Your task to perform on an android device: turn smart compose on in the gmail app Image 0: 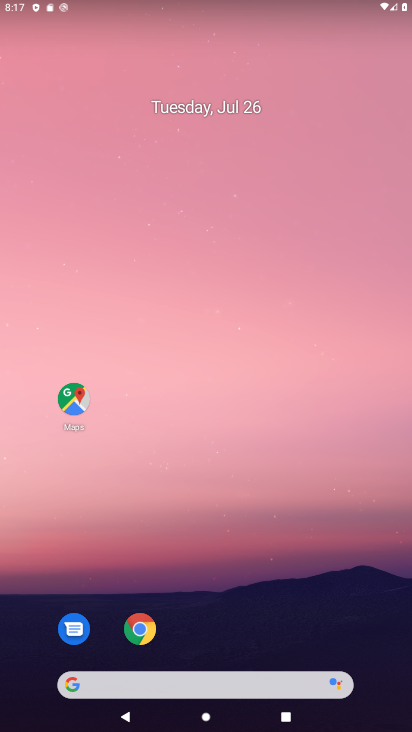
Step 0: drag from (225, 646) to (156, 85)
Your task to perform on an android device: turn smart compose on in the gmail app Image 1: 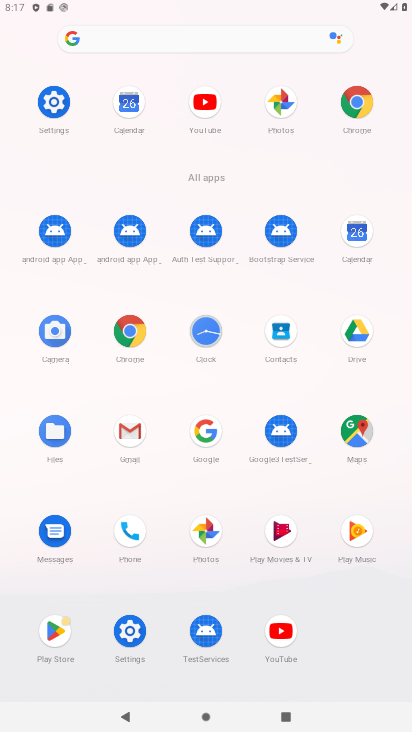
Step 1: click (134, 434)
Your task to perform on an android device: turn smart compose on in the gmail app Image 2: 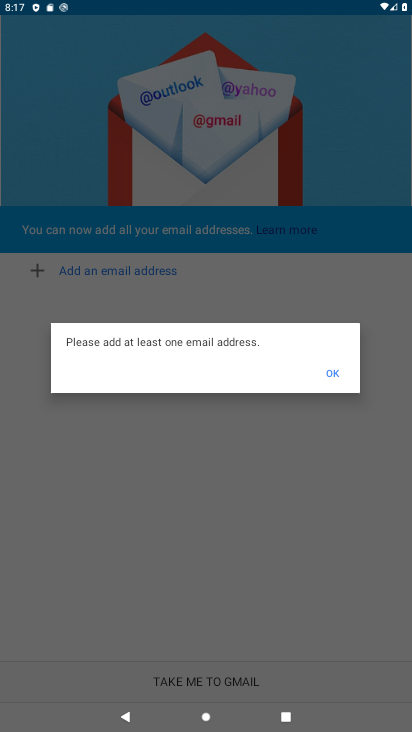
Step 2: click (332, 369)
Your task to perform on an android device: turn smart compose on in the gmail app Image 3: 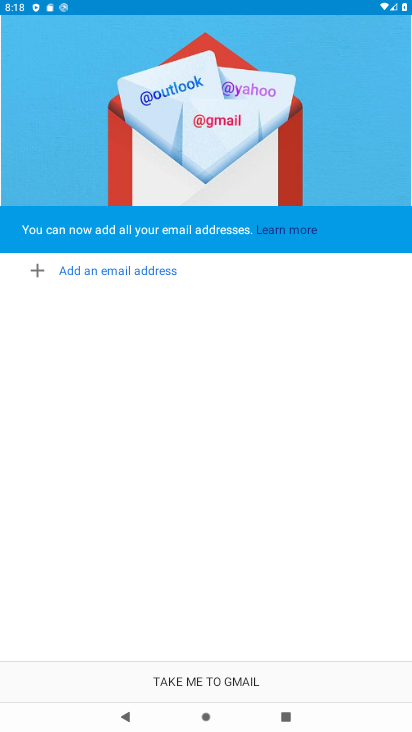
Step 3: task complete